Your task to perform on an android device: empty trash in the gmail app Image 0: 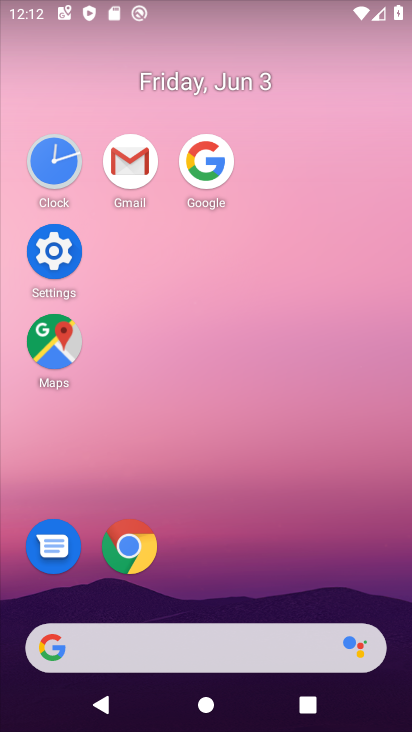
Step 0: click (134, 165)
Your task to perform on an android device: empty trash in the gmail app Image 1: 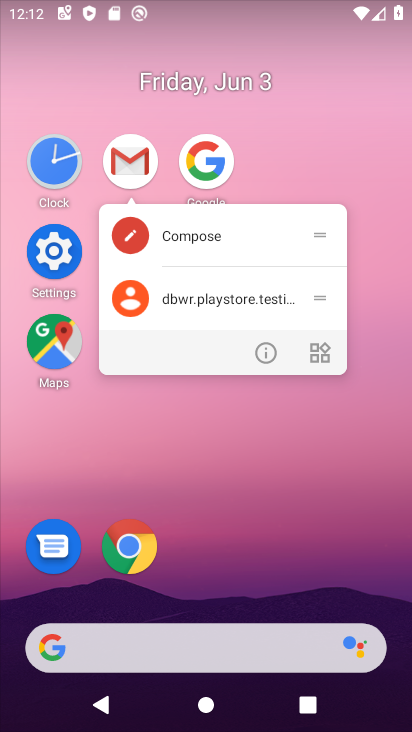
Step 1: click (136, 165)
Your task to perform on an android device: empty trash in the gmail app Image 2: 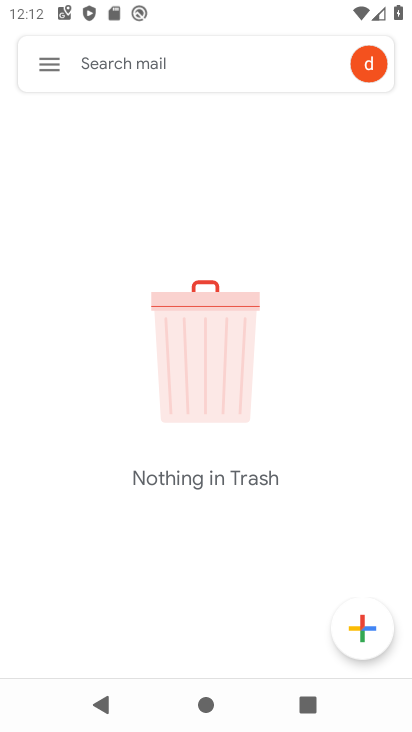
Step 2: click (46, 76)
Your task to perform on an android device: empty trash in the gmail app Image 3: 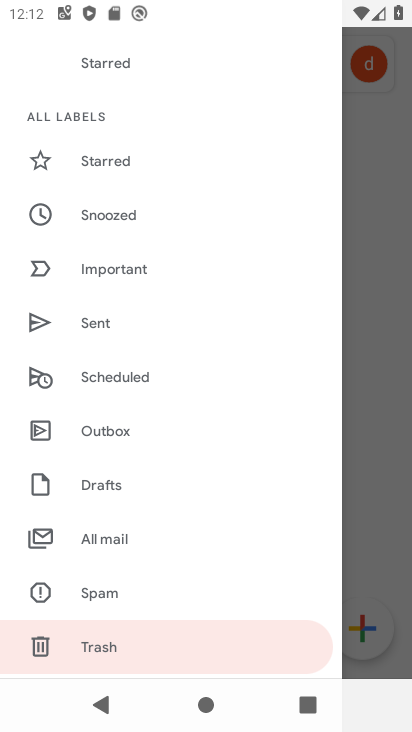
Step 3: click (108, 640)
Your task to perform on an android device: empty trash in the gmail app Image 4: 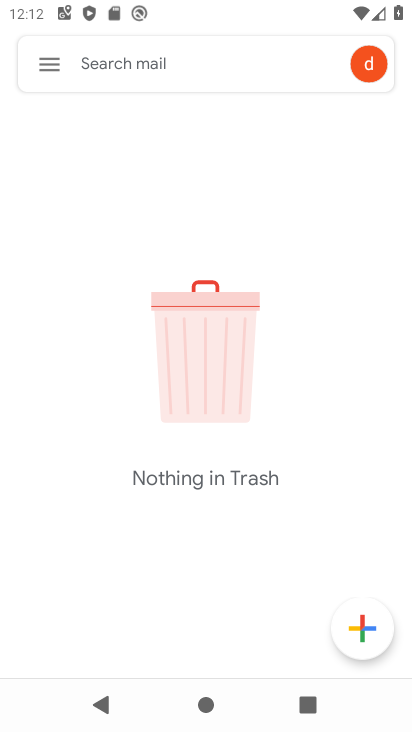
Step 4: task complete